Your task to perform on an android device: move an email to a new category in the gmail app Image 0: 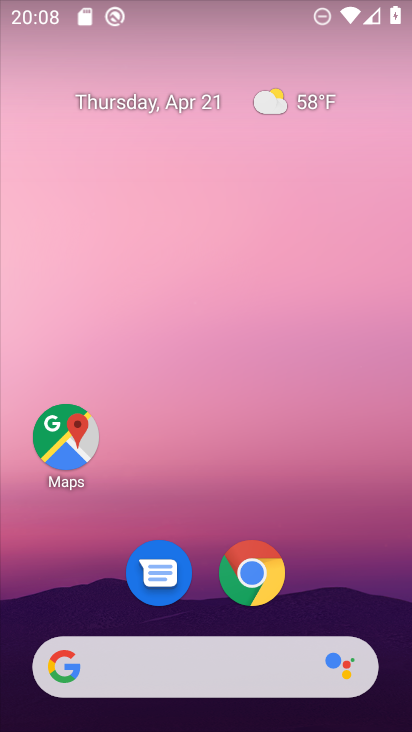
Step 0: drag from (174, 615) to (250, 270)
Your task to perform on an android device: move an email to a new category in the gmail app Image 1: 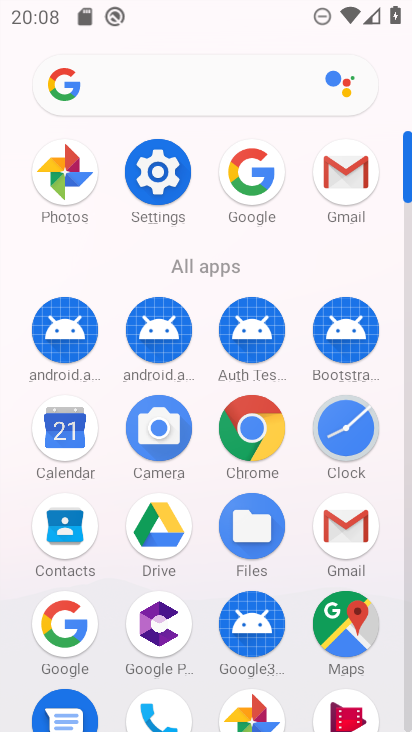
Step 1: click (335, 185)
Your task to perform on an android device: move an email to a new category in the gmail app Image 2: 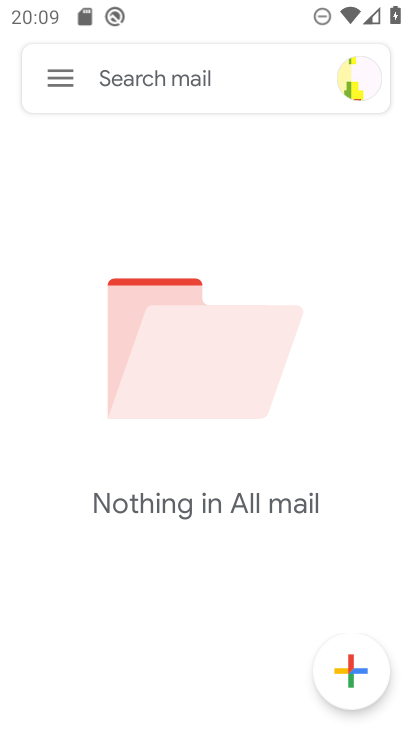
Step 2: task complete